Your task to perform on an android device: Go to settings Image 0: 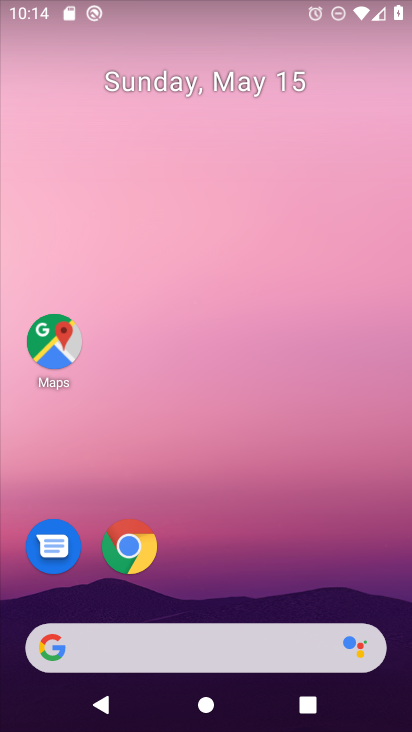
Step 0: drag from (322, 571) to (344, 256)
Your task to perform on an android device: Go to settings Image 1: 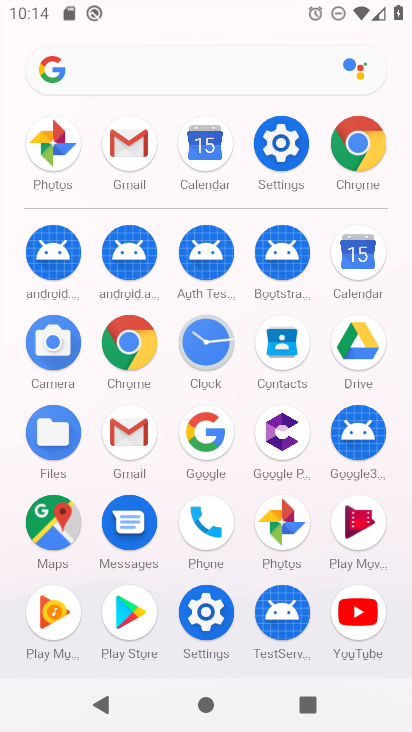
Step 1: click (289, 137)
Your task to perform on an android device: Go to settings Image 2: 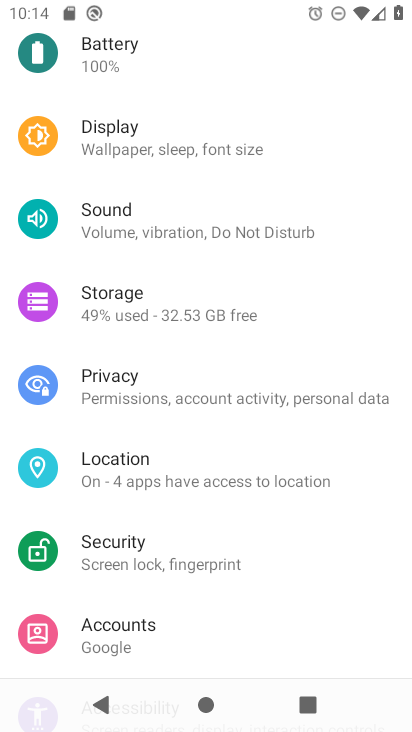
Step 2: task complete